Your task to perform on an android device: delete location history Image 0: 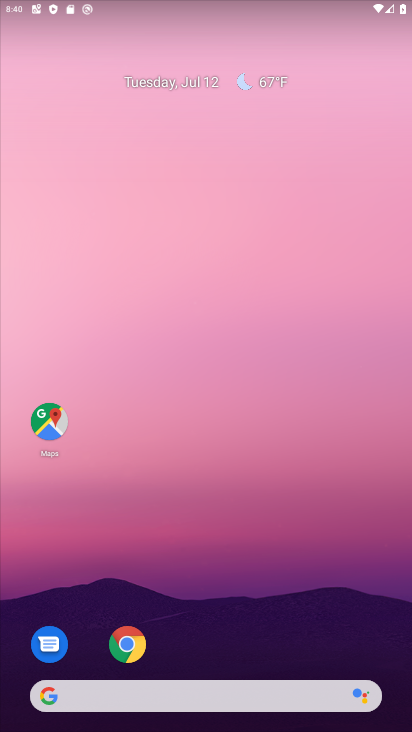
Step 0: drag from (179, 653) to (243, 24)
Your task to perform on an android device: delete location history Image 1: 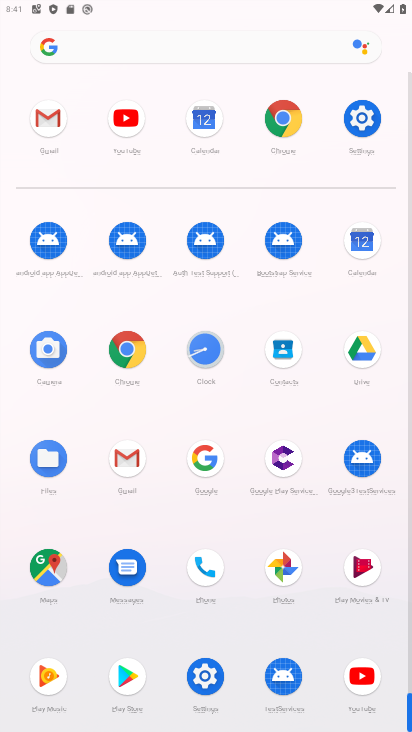
Step 1: click (194, 686)
Your task to perform on an android device: delete location history Image 2: 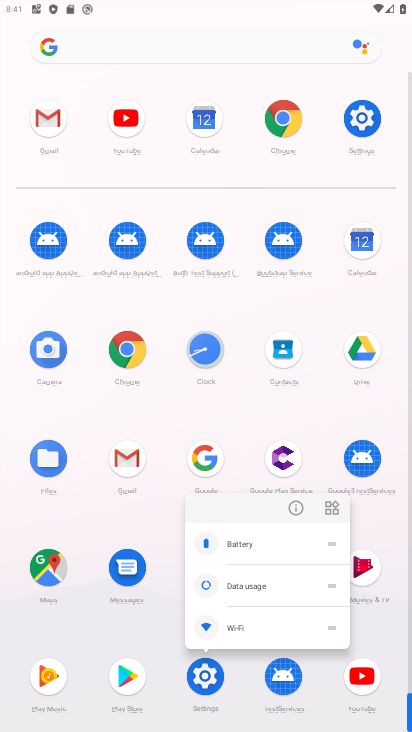
Step 2: click (287, 507)
Your task to perform on an android device: delete location history Image 3: 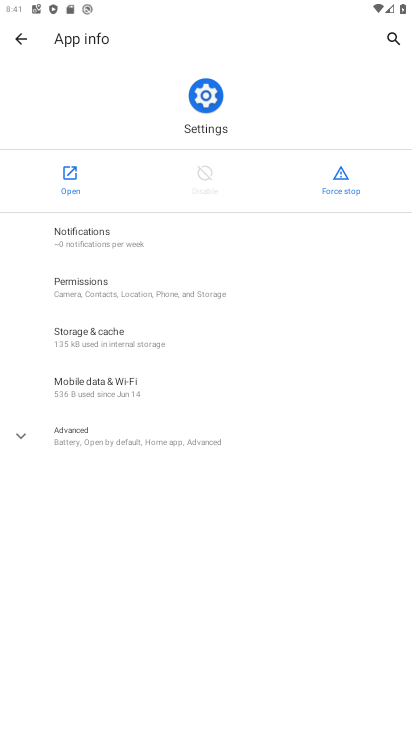
Step 3: click (75, 176)
Your task to perform on an android device: delete location history Image 4: 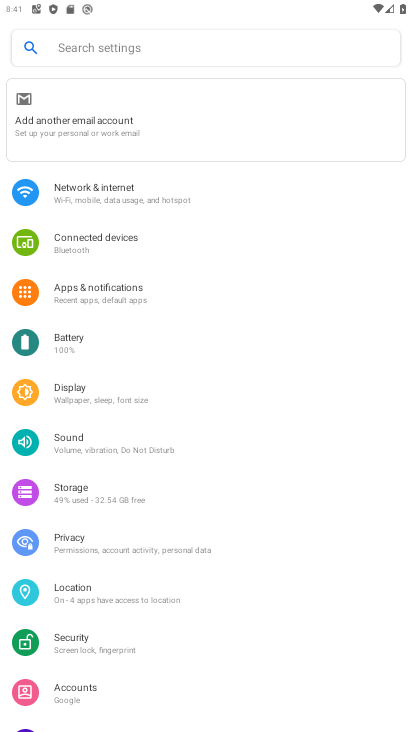
Step 4: drag from (158, 637) to (231, 364)
Your task to perform on an android device: delete location history Image 5: 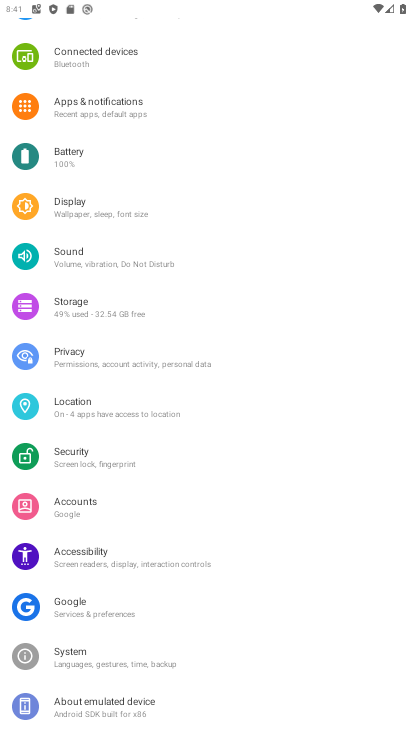
Step 5: click (102, 410)
Your task to perform on an android device: delete location history Image 6: 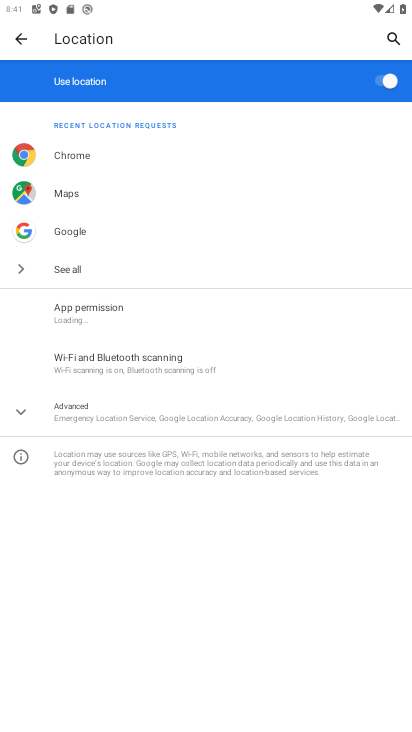
Step 6: drag from (195, 601) to (278, 362)
Your task to perform on an android device: delete location history Image 7: 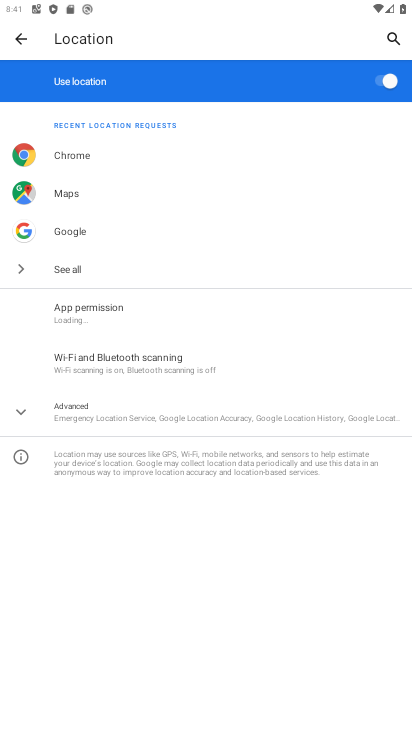
Step 7: click (117, 413)
Your task to perform on an android device: delete location history Image 8: 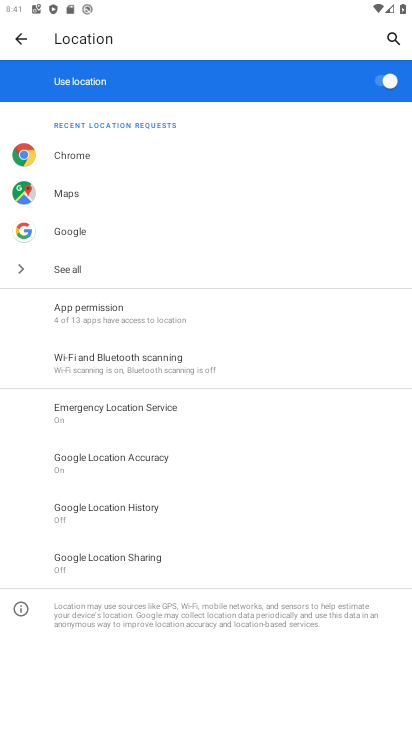
Step 8: drag from (203, 541) to (252, 318)
Your task to perform on an android device: delete location history Image 9: 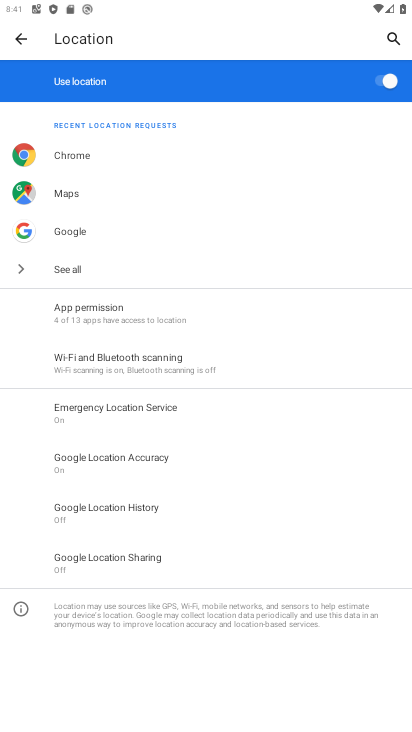
Step 9: click (157, 507)
Your task to perform on an android device: delete location history Image 10: 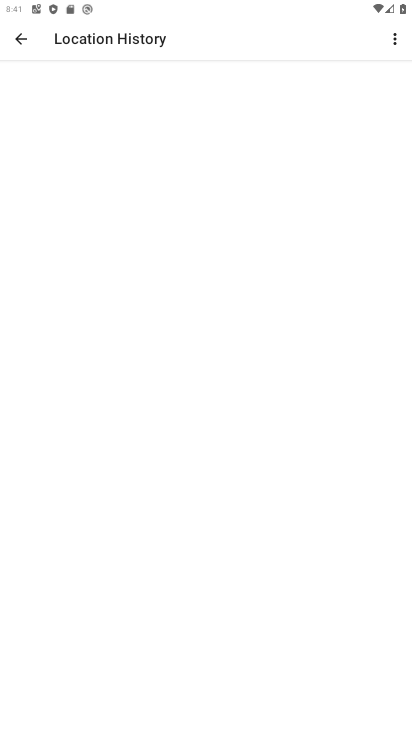
Step 10: drag from (198, 580) to (267, 190)
Your task to perform on an android device: delete location history Image 11: 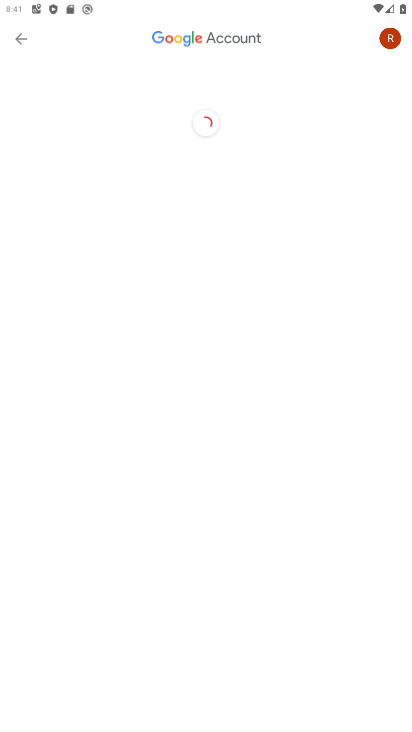
Step 11: drag from (255, 208) to (307, 587)
Your task to perform on an android device: delete location history Image 12: 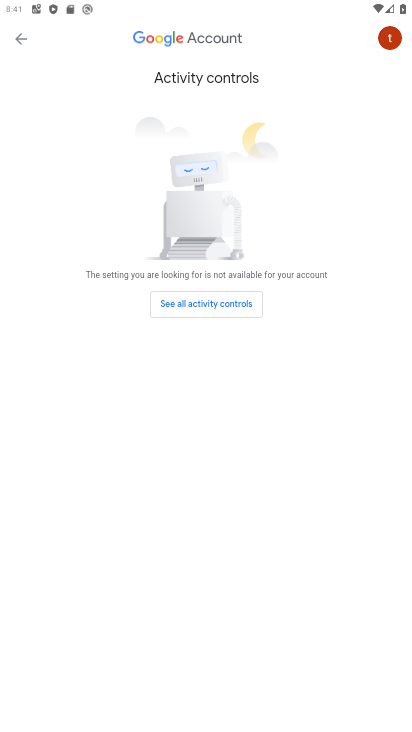
Step 12: drag from (313, 342) to (282, 691)
Your task to perform on an android device: delete location history Image 13: 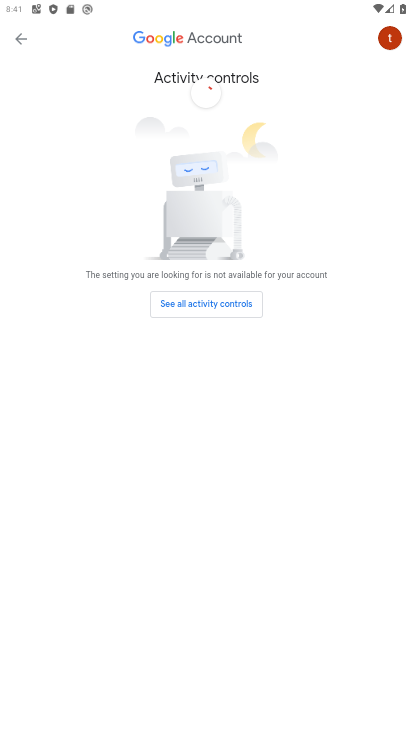
Step 13: drag from (211, 251) to (255, 685)
Your task to perform on an android device: delete location history Image 14: 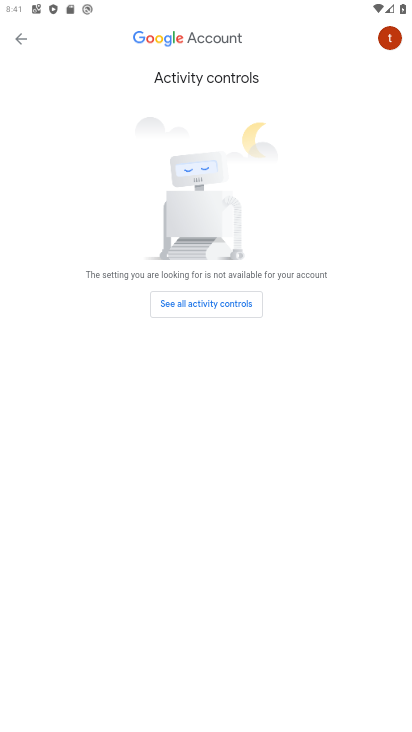
Step 14: click (231, 220)
Your task to perform on an android device: delete location history Image 15: 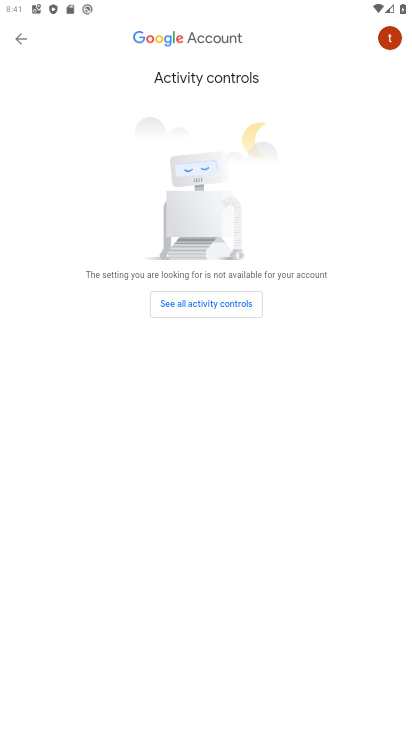
Step 15: click (229, 444)
Your task to perform on an android device: delete location history Image 16: 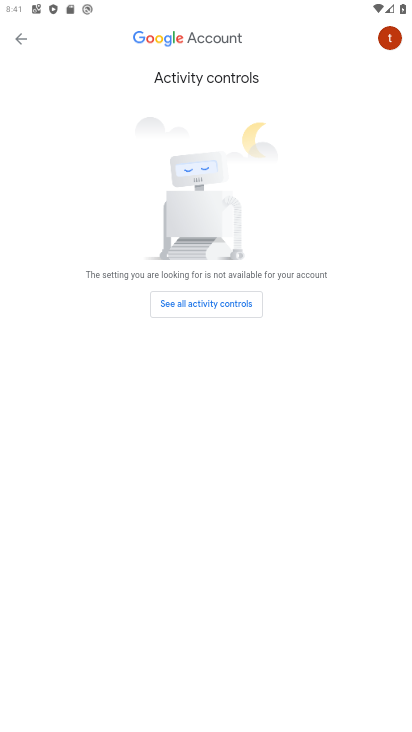
Step 16: click (223, 199)
Your task to perform on an android device: delete location history Image 17: 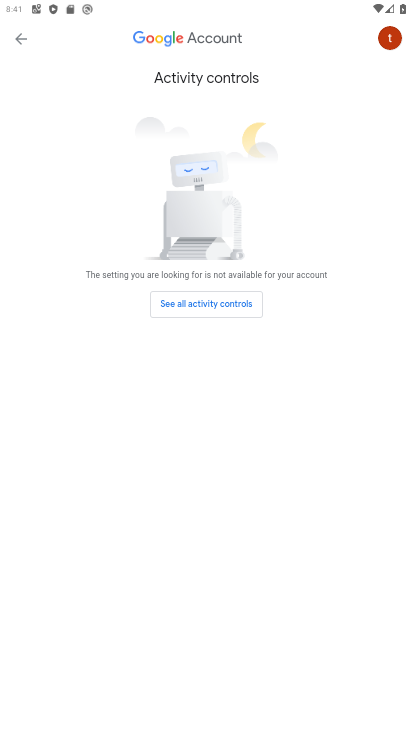
Step 17: drag from (210, 485) to (226, 552)
Your task to perform on an android device: delete location history Image 18: 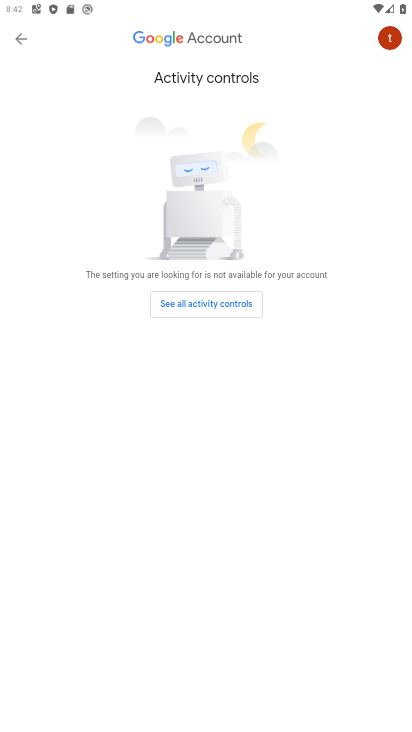
Step 18: click (295, 217)
Your task to perform on an android device: delete location history Image 19: 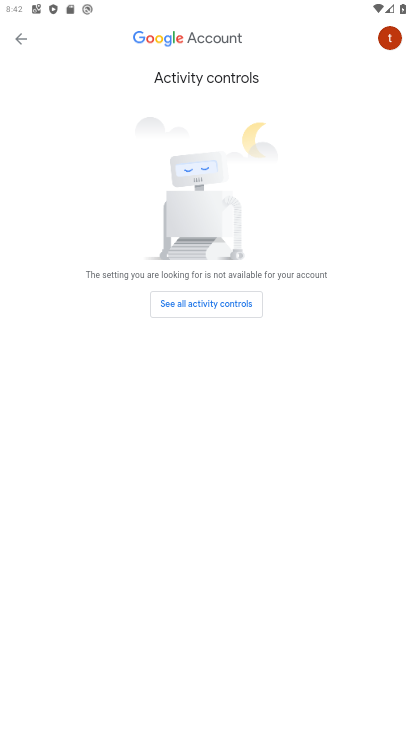
Step 19: click (202, 289)
Your task to perform on an android device: delete location history Image 20: 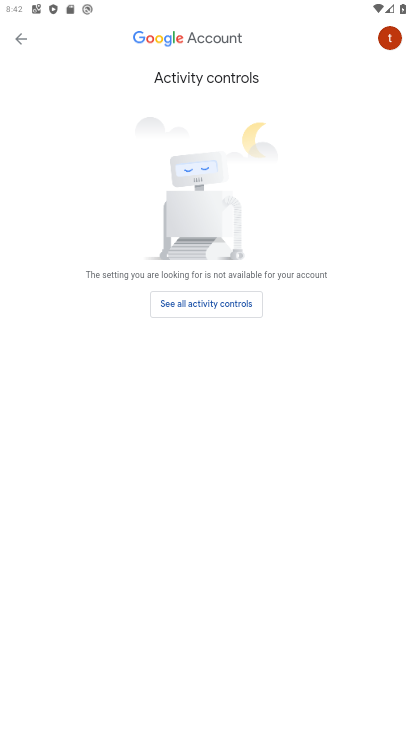
Step 20: click (197, 297)
Your task to perform on an android device: delete location history Image 21: 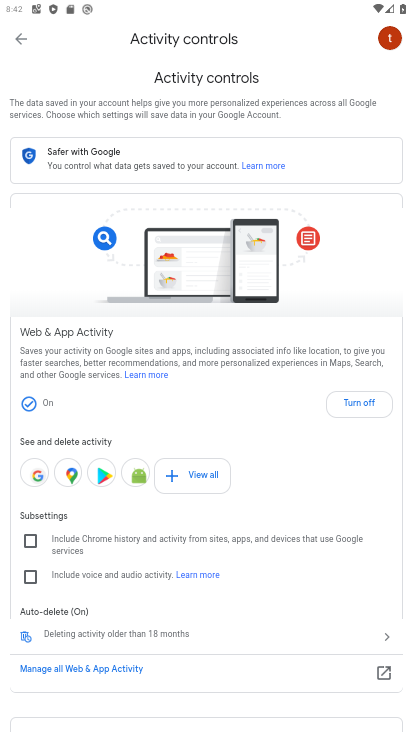
Step 21: drag from (241, 579) to (257, 254)
Your task to perform on an android device: delete location history Image 22: 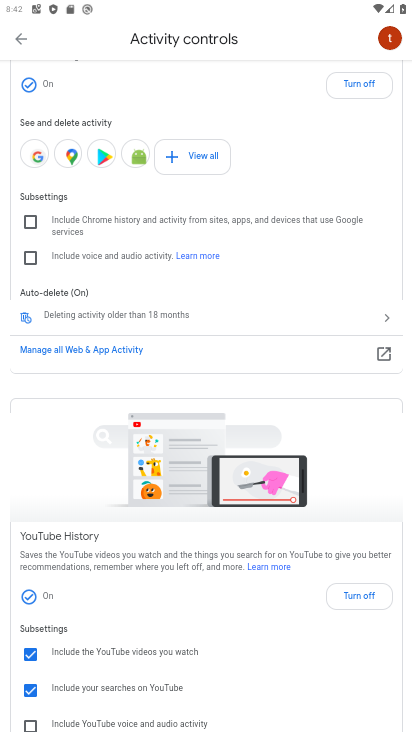
Step 22: drag from (206, 568) to (216, 287)
Your task to perform on an android device: delete location history Image 23: 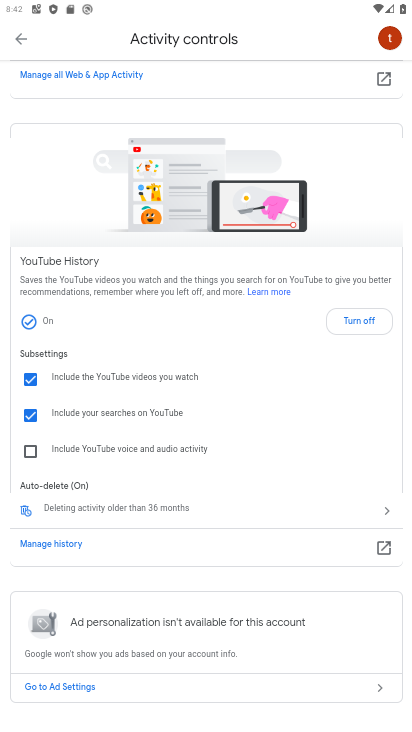
Step 23: drag from (206, 278) to (225, 689)
Your task to perform on an android device: delete location history Image 24: 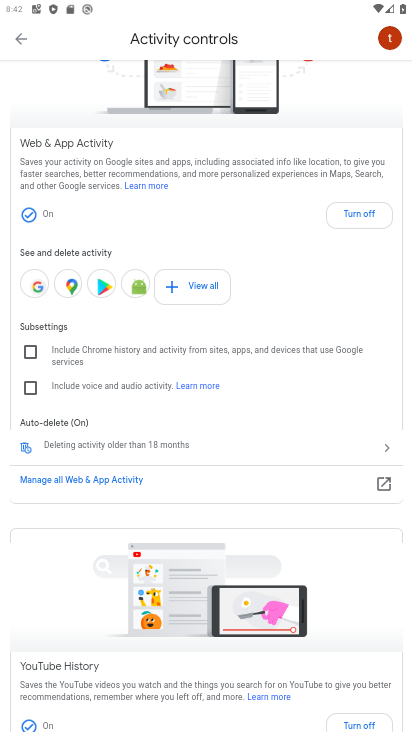
Step 24: drag from (226, 248) to (247, 640)
Your task to perform on an android device: delete location history Image 25: 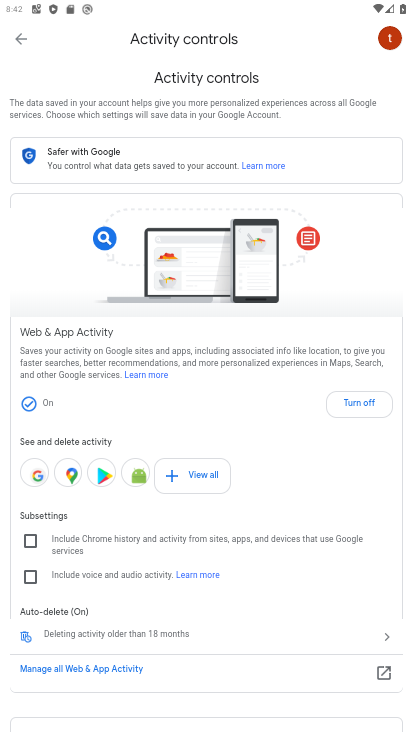
Step 25: click (35, 633)
Your task to perform on an android device: delete location history Image 26: 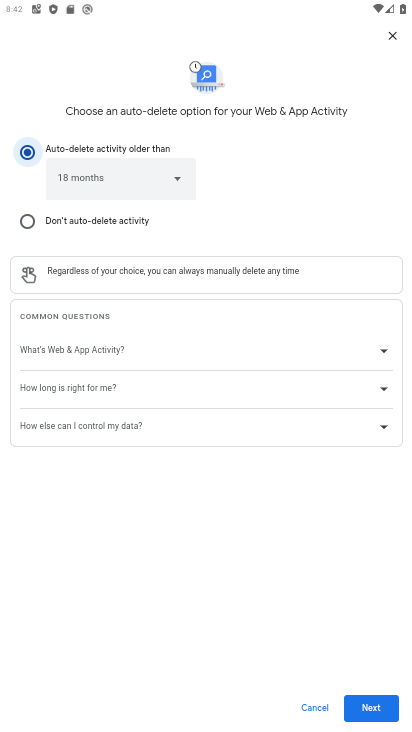
Step 26: click (374, 707)
Your task to perform on an android device: delete location history Image 27: 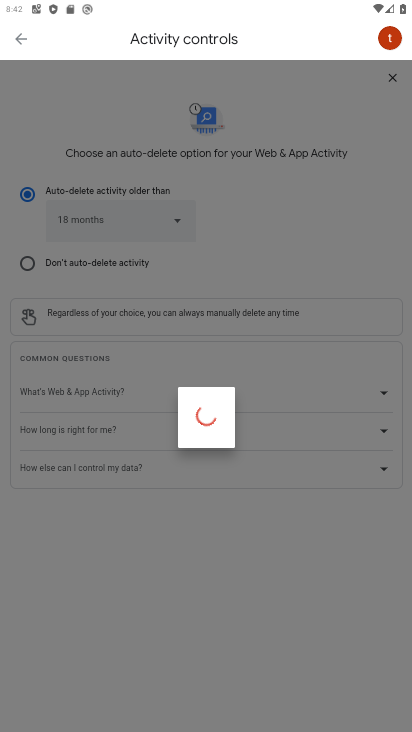
Step 27: click (370, 711)
Your task to perform on an android device: delete location history Image 28: 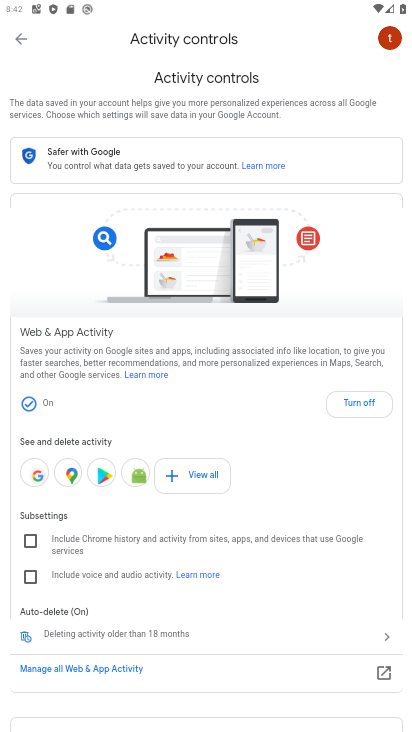
Step 28: task complete